Your task to perform on an android device: change the upload size in google photos Image 0: 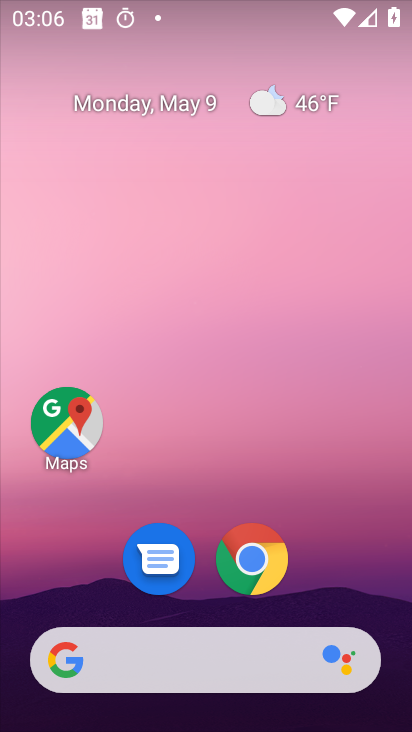
Step 0: drag from (208, 495) to (227, 6)
Your task to perform on an android device: change the upload size in google photos Image 1: 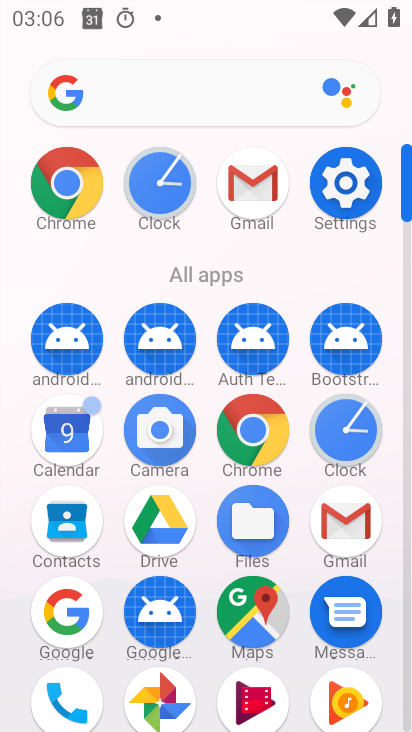
Step 1: drag from (198, 562) to (210, 350)
Your task to perform on an android device: change the upload size in google photos Image 2: 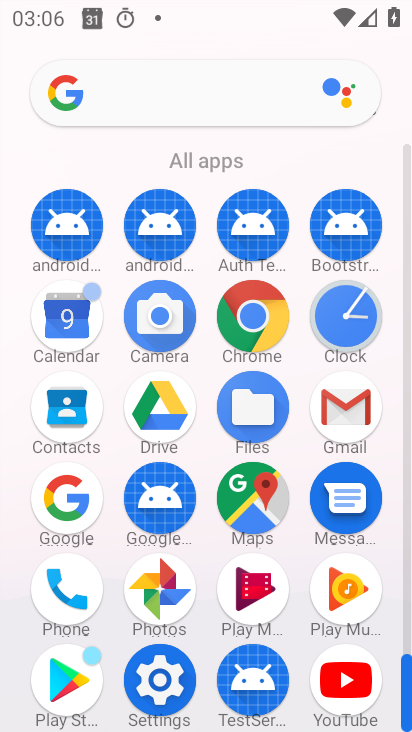
Step 2: click (160, 587)
Your task to perform on an android device: change the upload size in google photos Image 3: 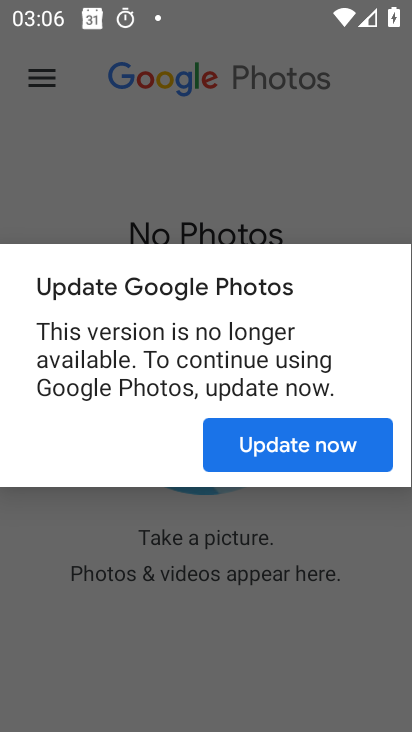
Step 3: click (290, 439)
Your task to perform on an android device: change the upload size in google photos Image 4: 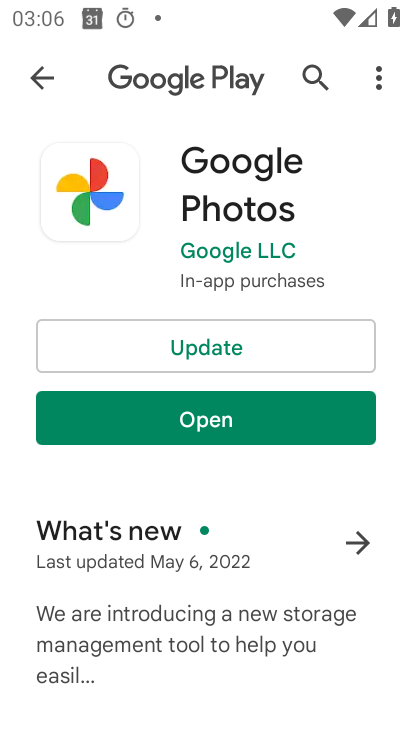
Step 4: click (222, 344)
Your task to perform on an android device: change the upload size in google photos Image 5: 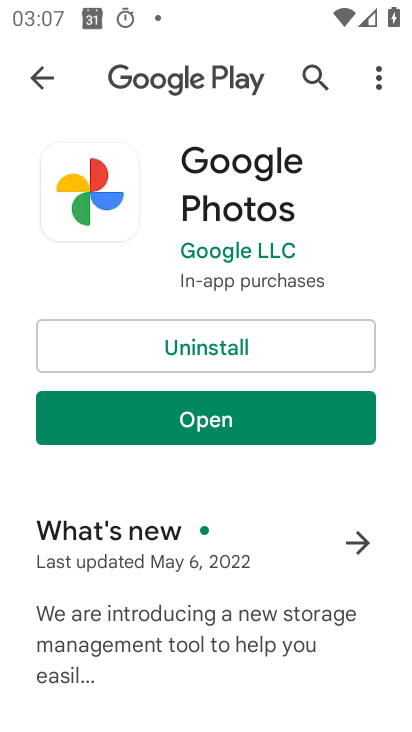
Step 5: click (192, 418)
Your task to perform on an android device: change the upload size in google photos Image 6: 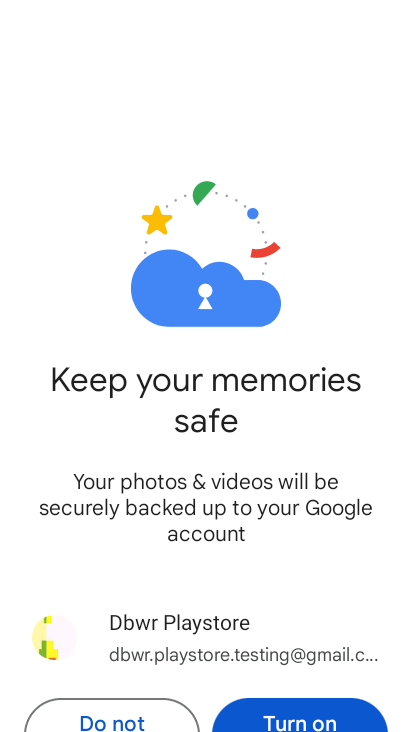
Step 6: drag from (272, 563) to (322, 307)
Your task to perform on an android device: change the upload size in google photos Image 7: 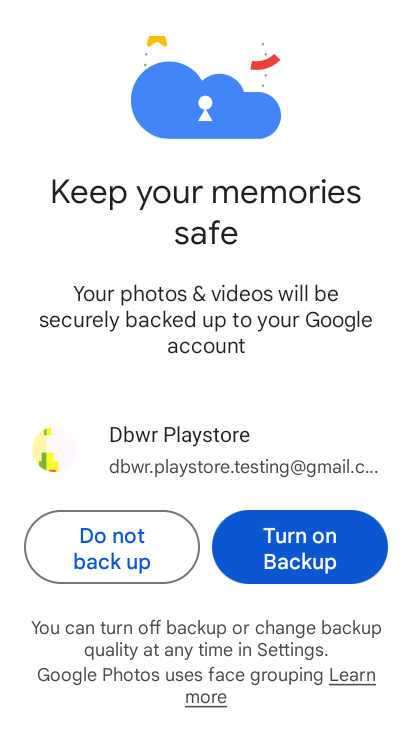
Step 7: click (178, 551)
Your task to perform on an android device: change the upload size in google photos Image 8: 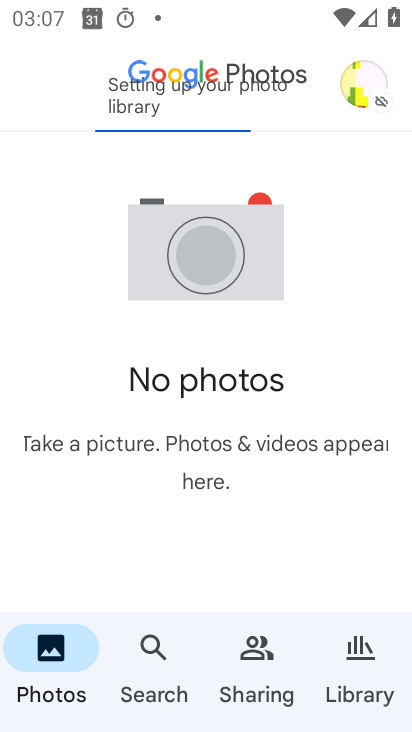
Step 8: click (368, 73)
Your task to perform on an android device: change the upload size in google photos Image 9: 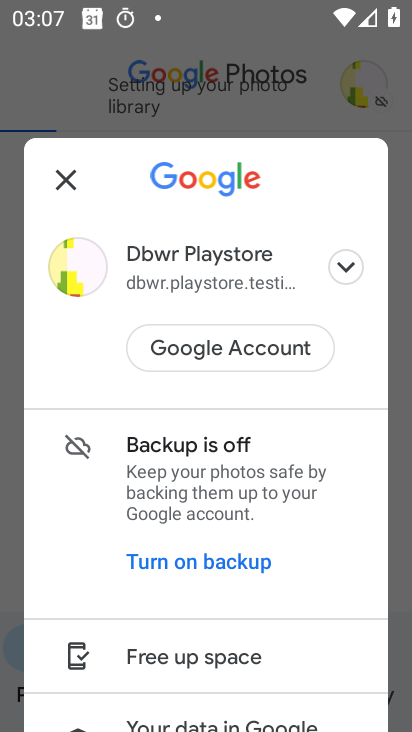
Step 9: drag from (146, 516) to (195, 303)
Your task to perform on an android device: change the upload size in google photos Image 10: 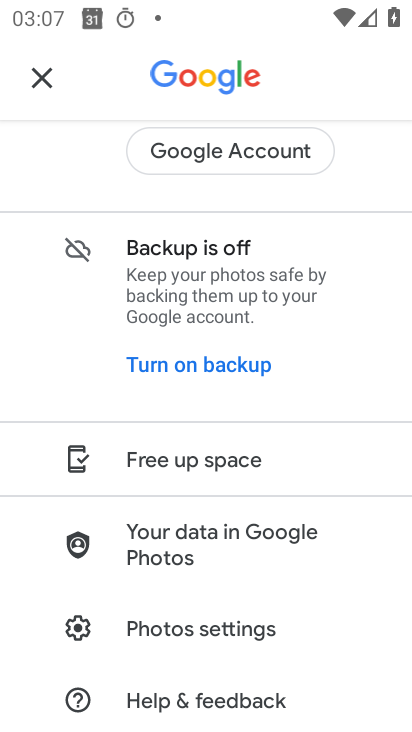
Step 10: click (168, 625)
Your task to perform on an android device: change the upload size in google photos Image 11: 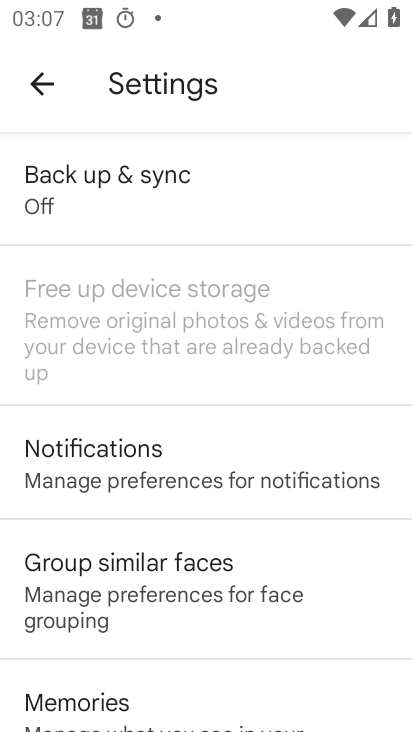
Step 11: click (146, 177)
Your task to perform on an android device: change the upload size in google photos Image 12: 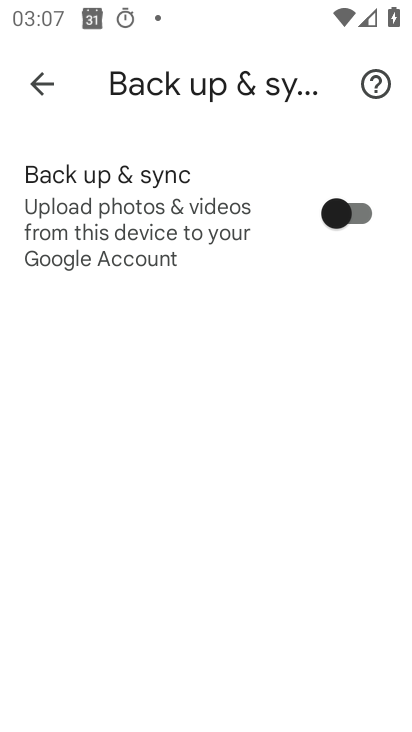
Step 12: task complete